Your task to perform on an android device: set the timer Image 0: 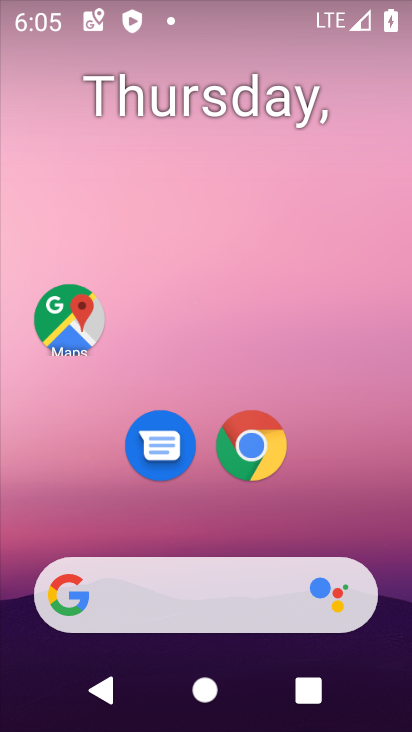
Step 0: drag from (321, 520) to (349, 144)
Your task to perform on an android device: set the timer Image 1: 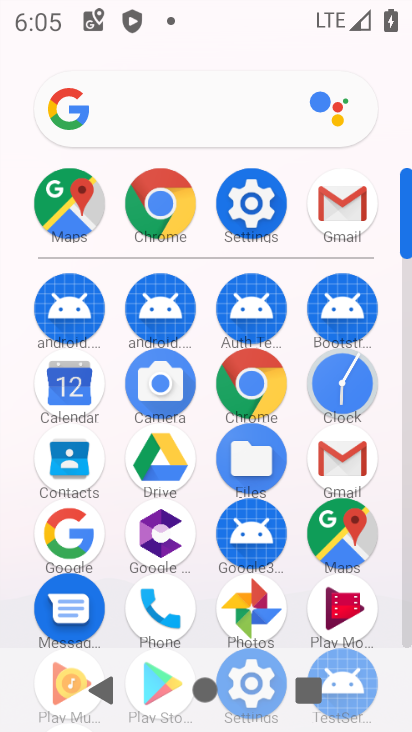
Step 1: click (334, 389)
Your task to perform on an android device: set the timer Image 2: 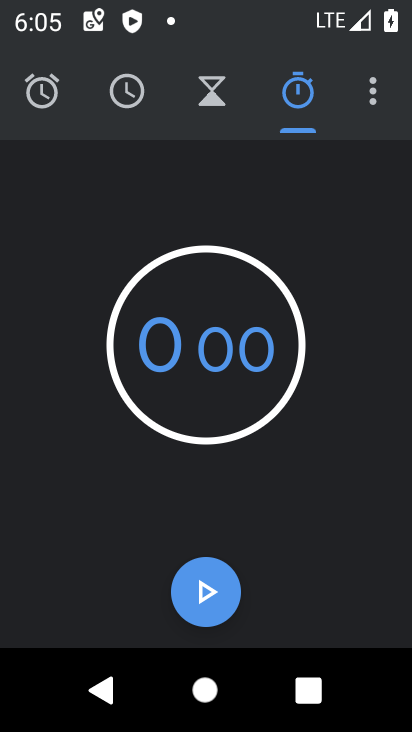
Step 2: click (202, 87)
Your task to perform on an android device: set the timer Image 3: 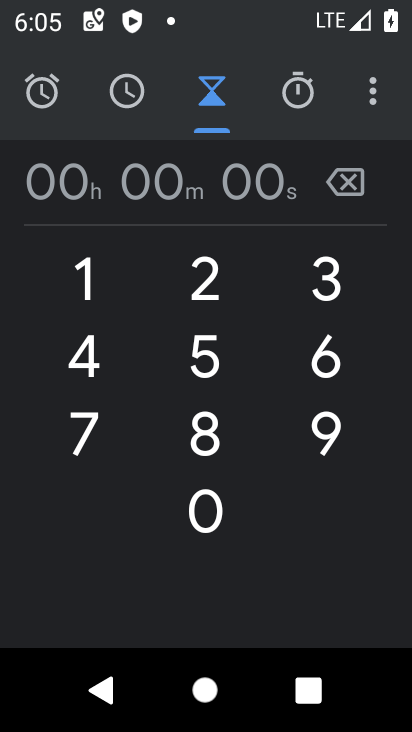
Step 3: click (204, 432)
Your task to perform on an android device: set the timer Image 4: 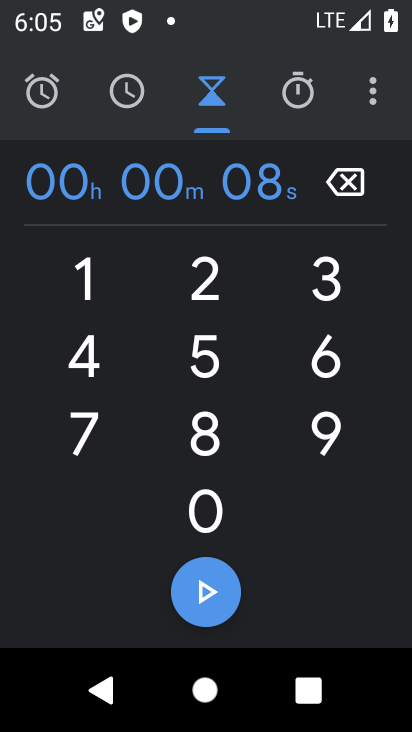
Step 4: click (204, 432)
Your task to perform on an android device: set the timer Image 5: 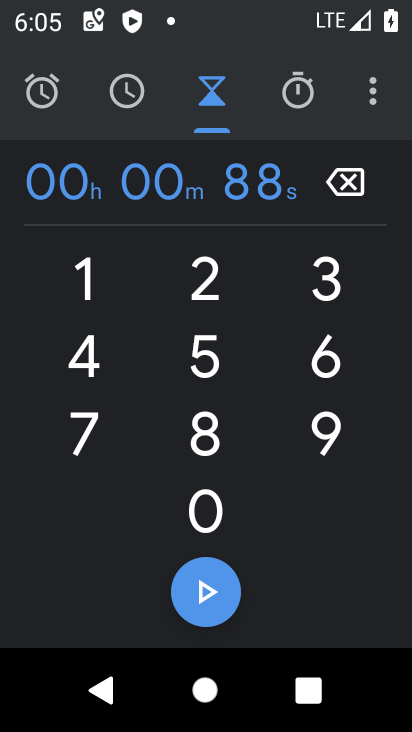
Step 5: click (204, 432)
Your task to perform on an android device: set the timer Image 6: 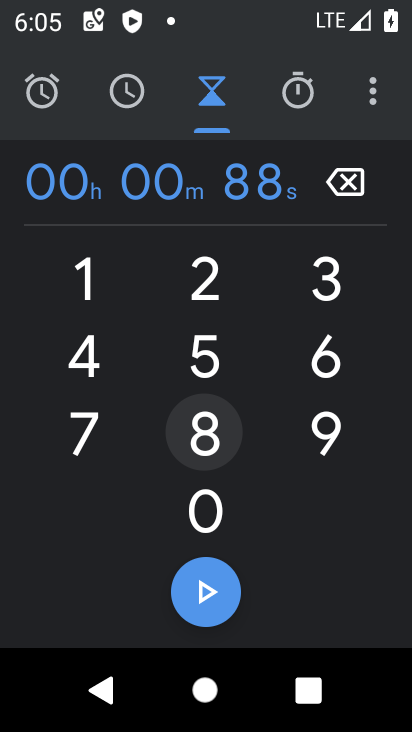
Step 6: click (204, 432)
Your task to perform on an android device: set the timer Image 7: 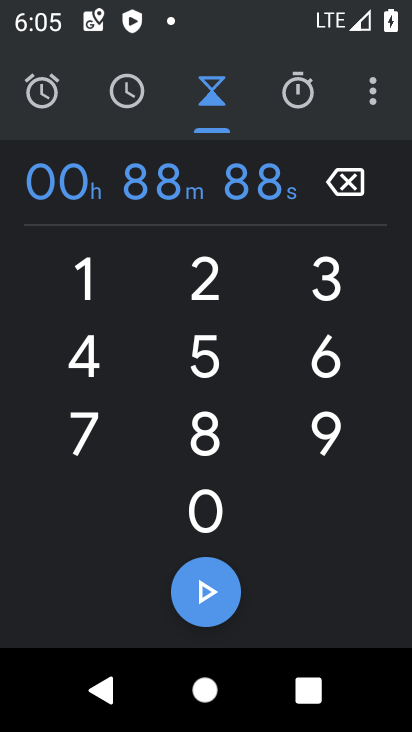
Step 7: click (204, 432)
Your task to perform on an android device: set the timer Image 8: 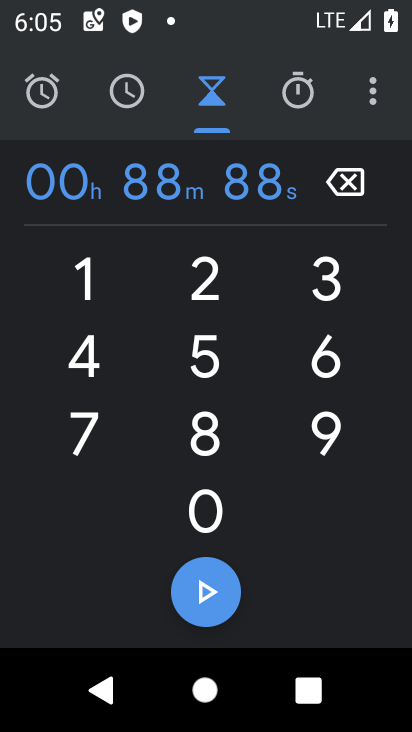
Step 8: click (204, 432)
Your task to perform on an android device: set the timer Image 9: 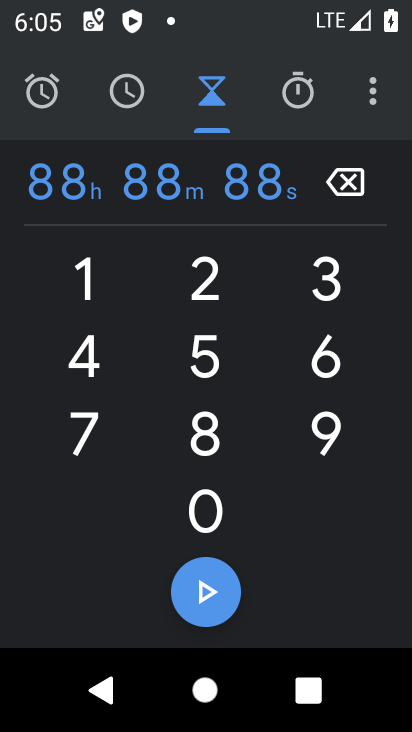
Step 9: click (205, 596)
Your task to perform on an android device: set the timer Image 10: 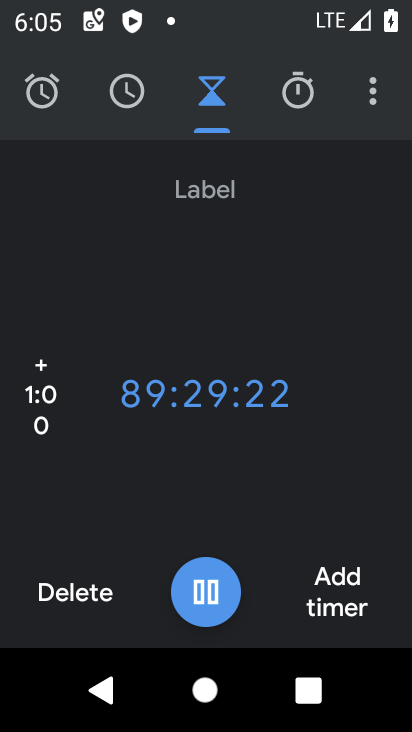
Step 10: task complete